Your task to perform on an android device: Go to CNN.com Image 0: 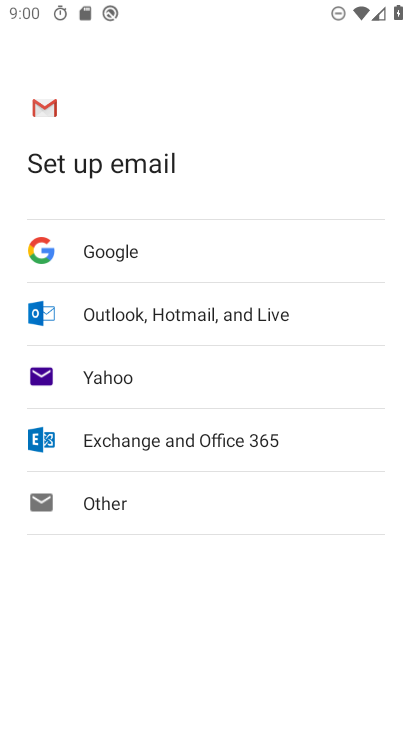
Step 0: press home button
Your task to perform on an android device: Go to CNN.com Image 1: 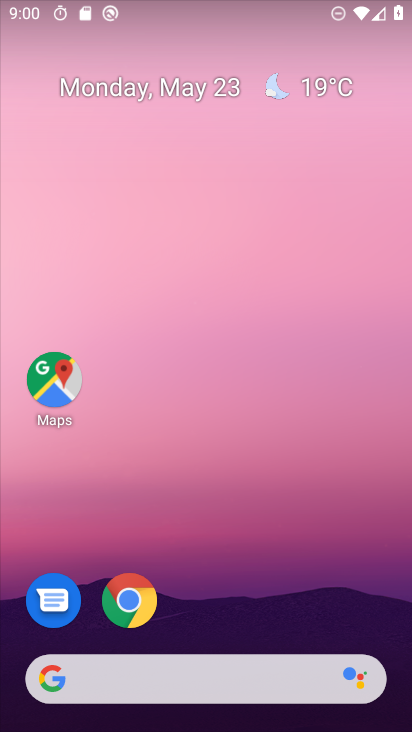
Step 1: click (210, 680)
Your task to perform on an android device: Go to CNN.com Image 2: 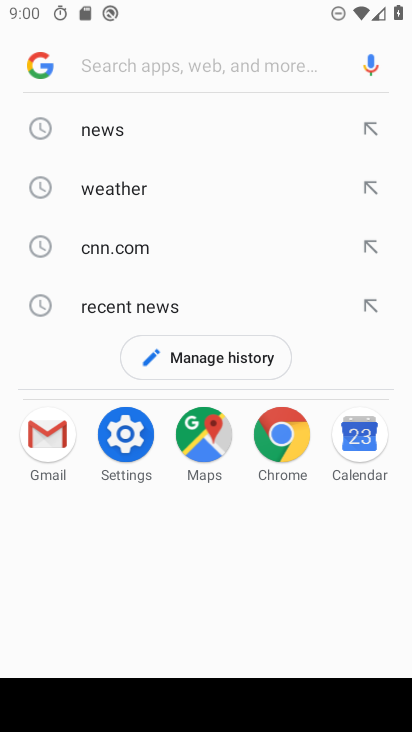
Step 2: click (130, 60)
Your task to perform on an android device: Go to CNN.com Image 3: 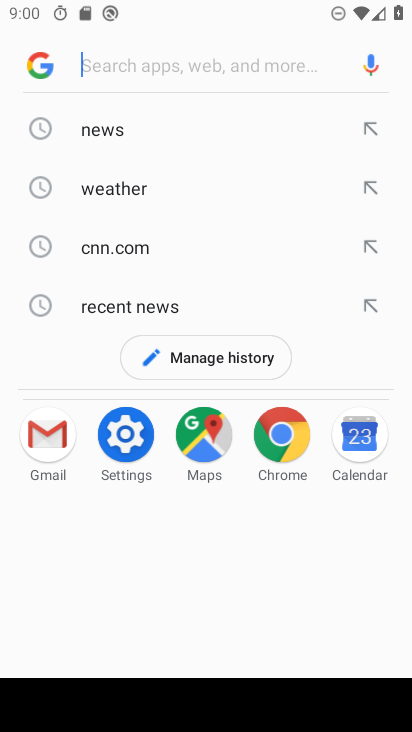
Step 3: type "CNN.com"
Your task to perform on an android device: Go to CNN.com Image 4: 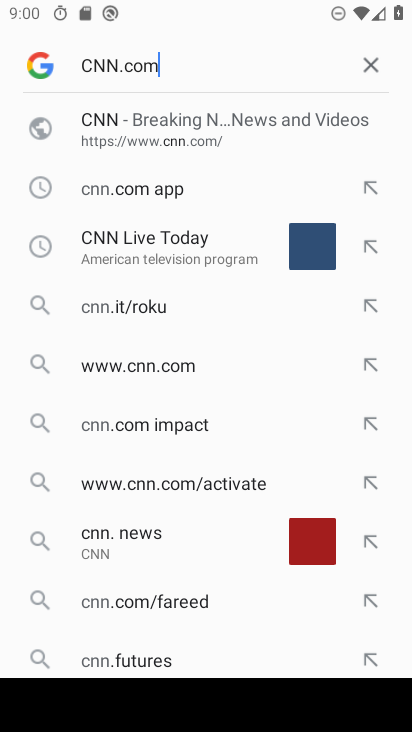
Step 4: type ""
Your task to perform on an android device: Go to CNN.com Image 5: 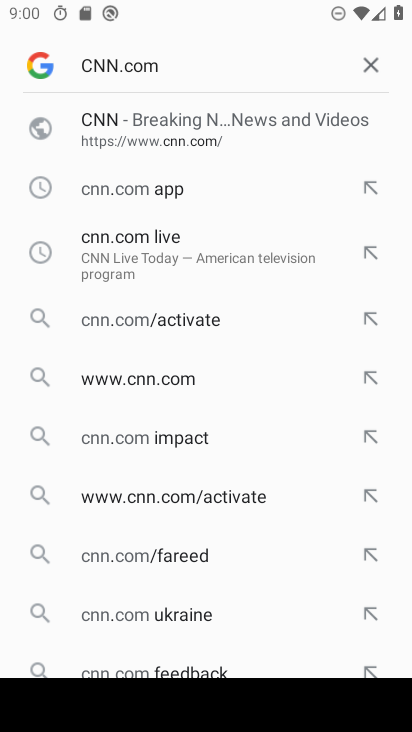
Step 5: click (94, 132)
Your task to perform on an android device: Go to CNN.com Image 6: 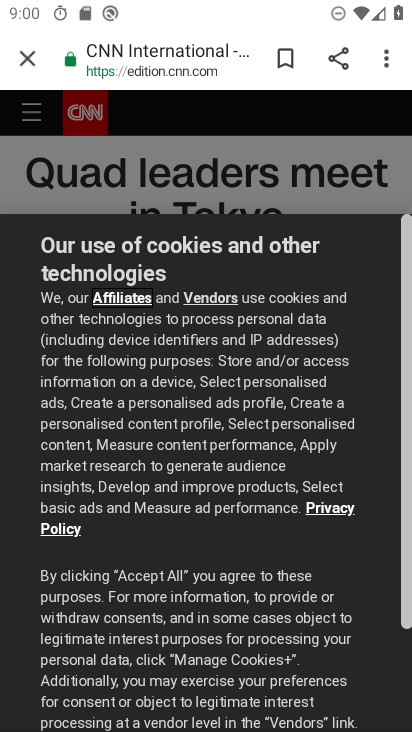
Step 6: task complete